Your task to perform on an android device: toggle javascript in the chrome app Image 0: 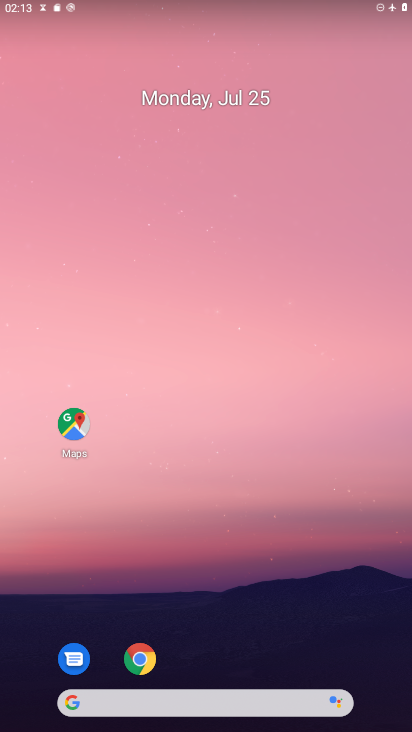
Step 0: drag from (244, 605) to (258, 143)
Your task to perform on an android device: toggle javascript in the chrome app Image 1: 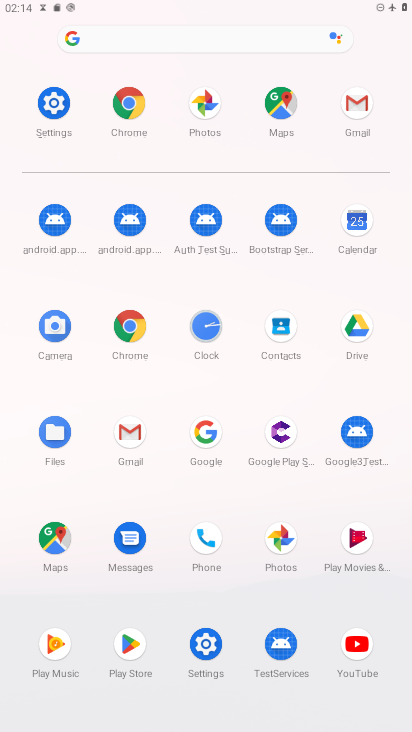
Step 1: click (130, 96)
Your task to perform on an android device: toggle javascript in the chrome app Image 2: 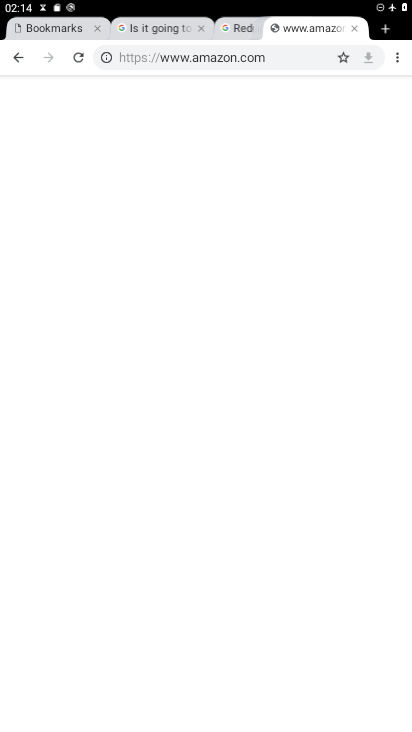
Step 2: click (398, 52)
Your task to perform on an android device: toggle javascript in the chrome app Image 3: 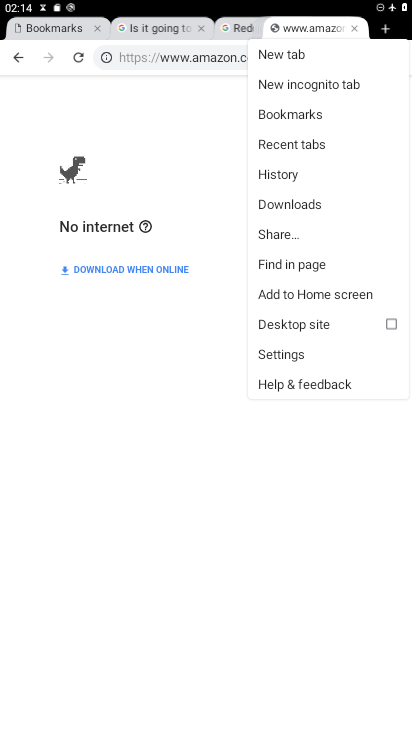
Step 3: click (298, 354)
Your task to perform on an android device: toggle javascript in the chrome app Image 4: 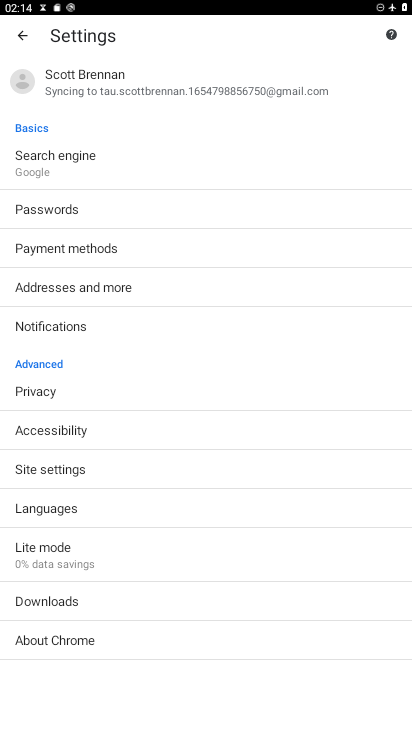
Step 4: click (96, 470)
Your task to perform on an android device: toggle javascript in the chrome app Image 5: 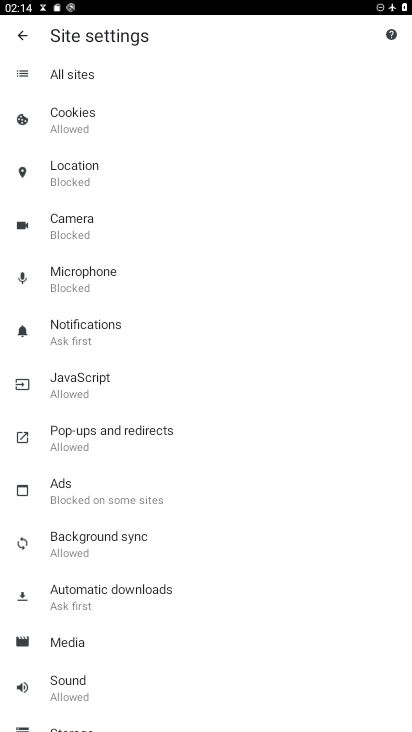
Step 5: click (134, 388)
Your task to perform on an android device: toggle javascript in the chrome app Image 6: 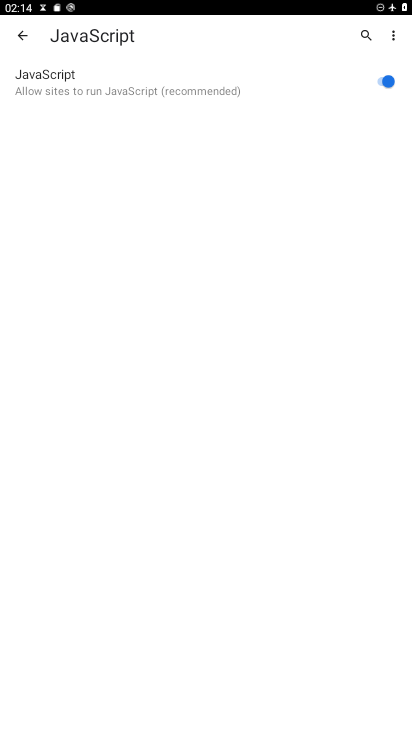
Step 6: click (383, 84)
Your task to perform on an android device: toggle javascript in the chrome app Image 7: 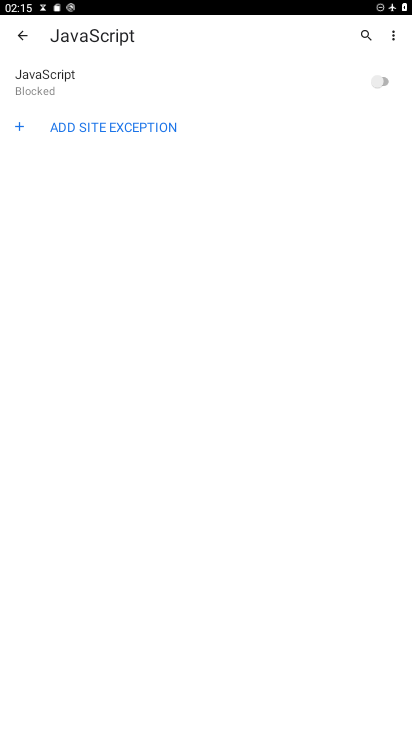
Step 7: task complete